Your task to perform on an android device: Show me popular videos on Youtube Image 0: 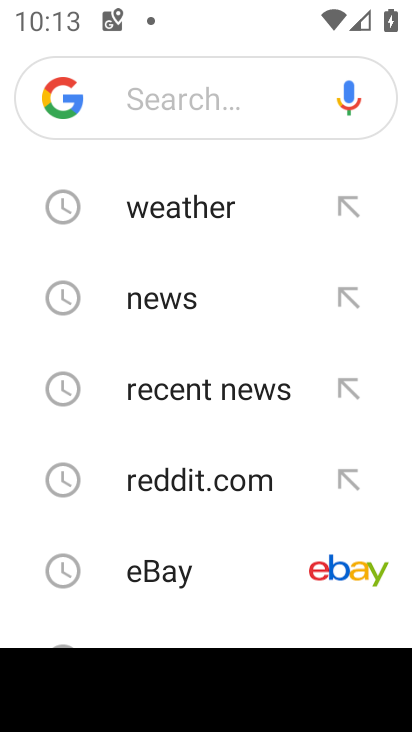
Step 0: press home button
Your task to perform on an android device: Show me popular videos on Youtube Image 1: 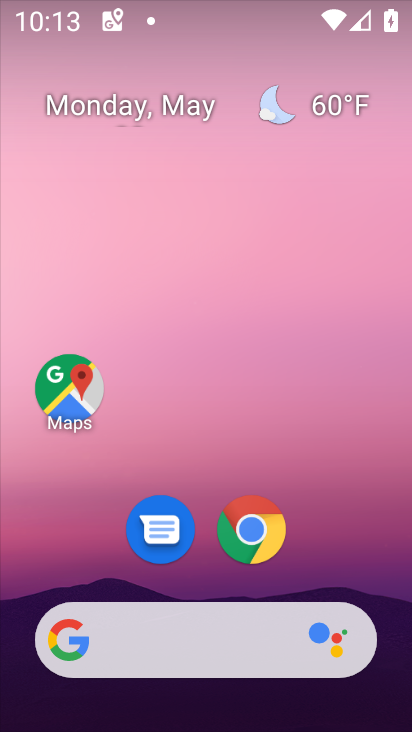
Step 1: drag from (217, 575) to (223, 82)
Your task to perform on an android device: Show me popular videos on Youtube Image 2: 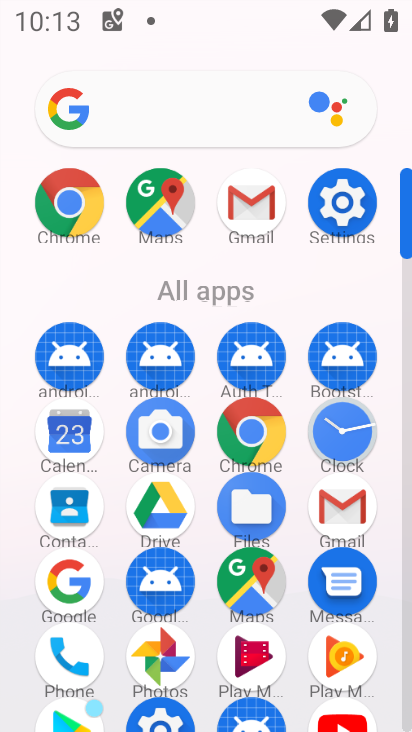
Step 2: drag from (275, 599) to (308, 327)
Your task to perform on an android device: Show me popular videos on Youtube Image 3: 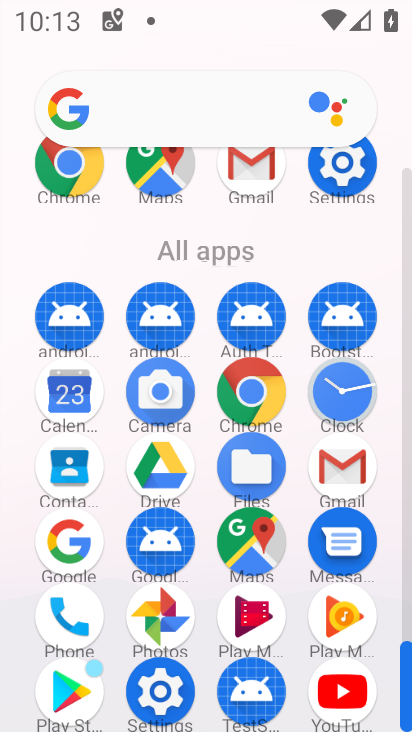
Step 3: click (339, 698)
Your task to perform on an android device: Show me popular videos on Youtube Image 4: 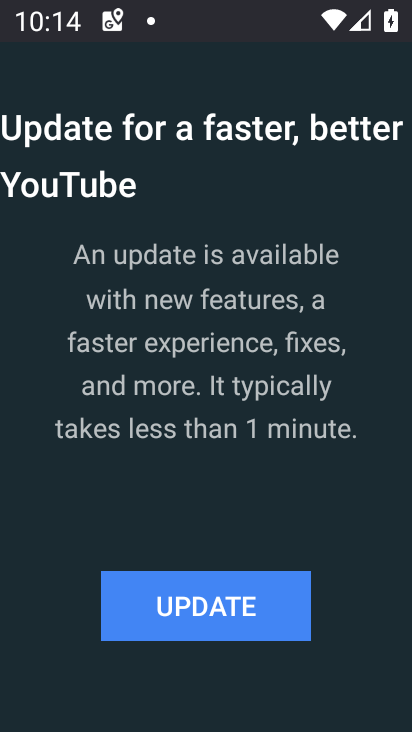
Step 4: click (203, 613)
Your task to perform on an android device: Show me popular videos on Youtube Image 5: 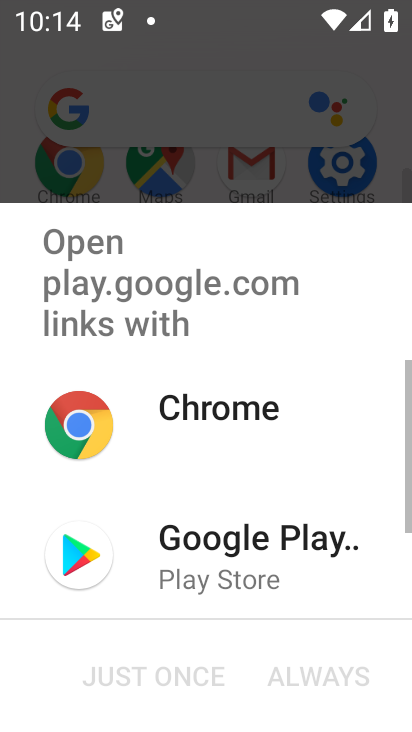
Step 5: drag from (194, 591) to (240, 591)
Your task to perform on an android device: Show me popular videos on Youtube Image 6: 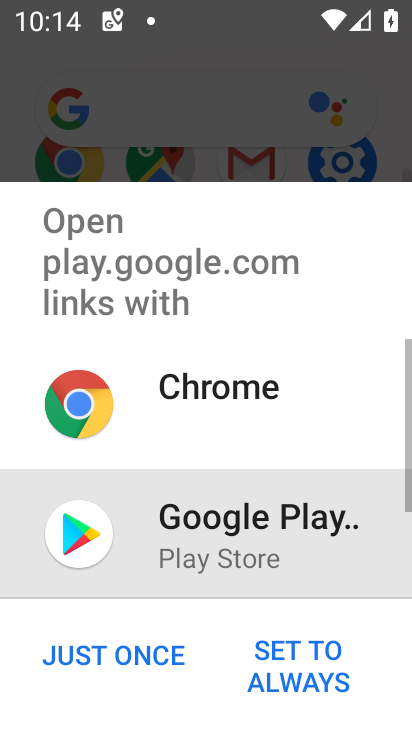
Step 6: click (314, 678)
Your task to perform on an android device: Show me popular videos on Youtube Image 7: 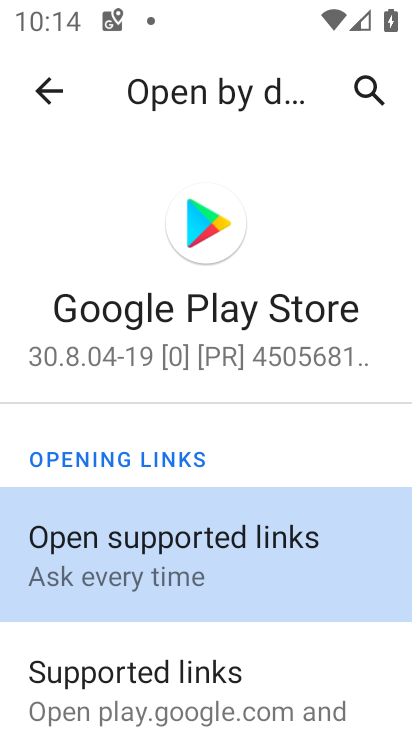
Step 7: click (149, 547)
Your task to perform on an android device: Show me popular videos on Youtube Image 8: 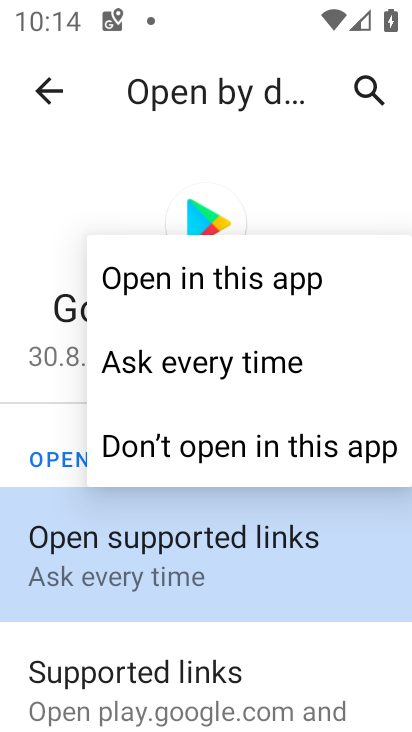
Step 8: click (222, 270)
Your task to perform on an android device: Show me popular videos on Youtube Image 9: 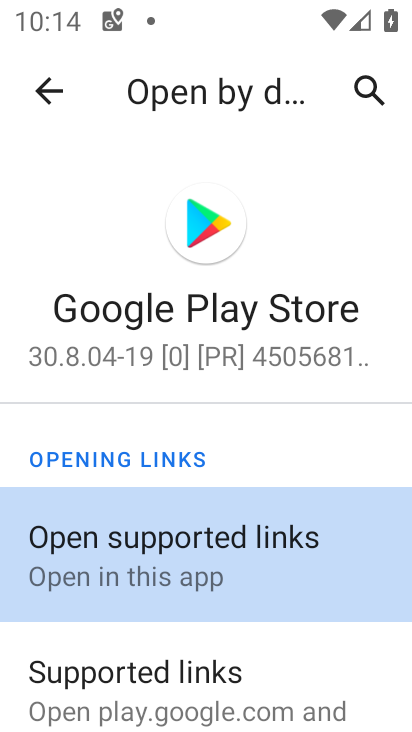
Step 9: click (34, 93)
Your task to perform on an android device: Show me popular videos on Youtube Image 10: 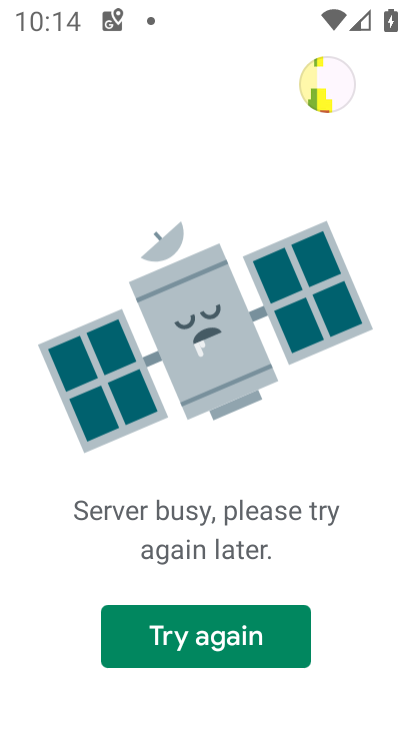
Step 10: task complete